Your task to perform on an android device: Go to network settings Image 0: 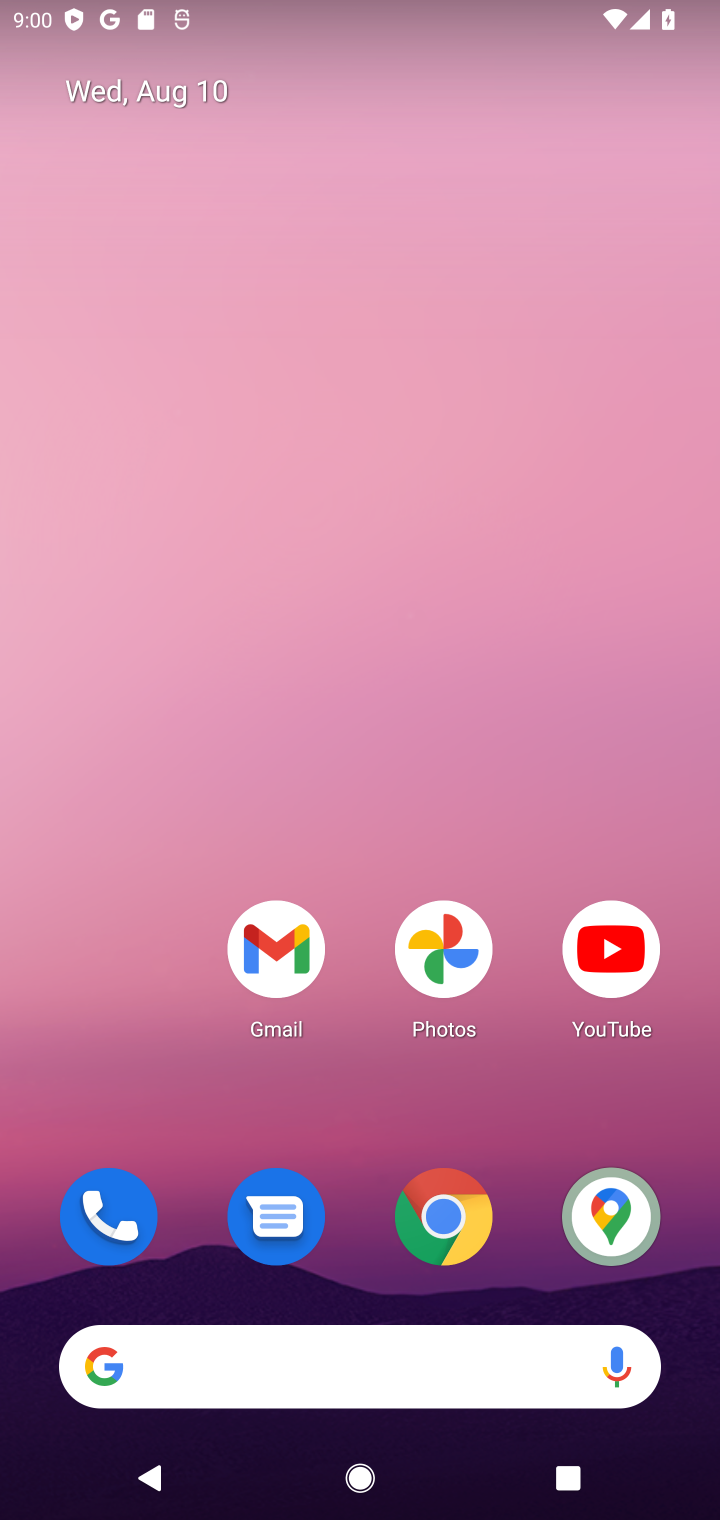
Step 0: drag from (144, 1058) to (403, 321)
Your task to perform on an android device: Go to network settings Image 1: 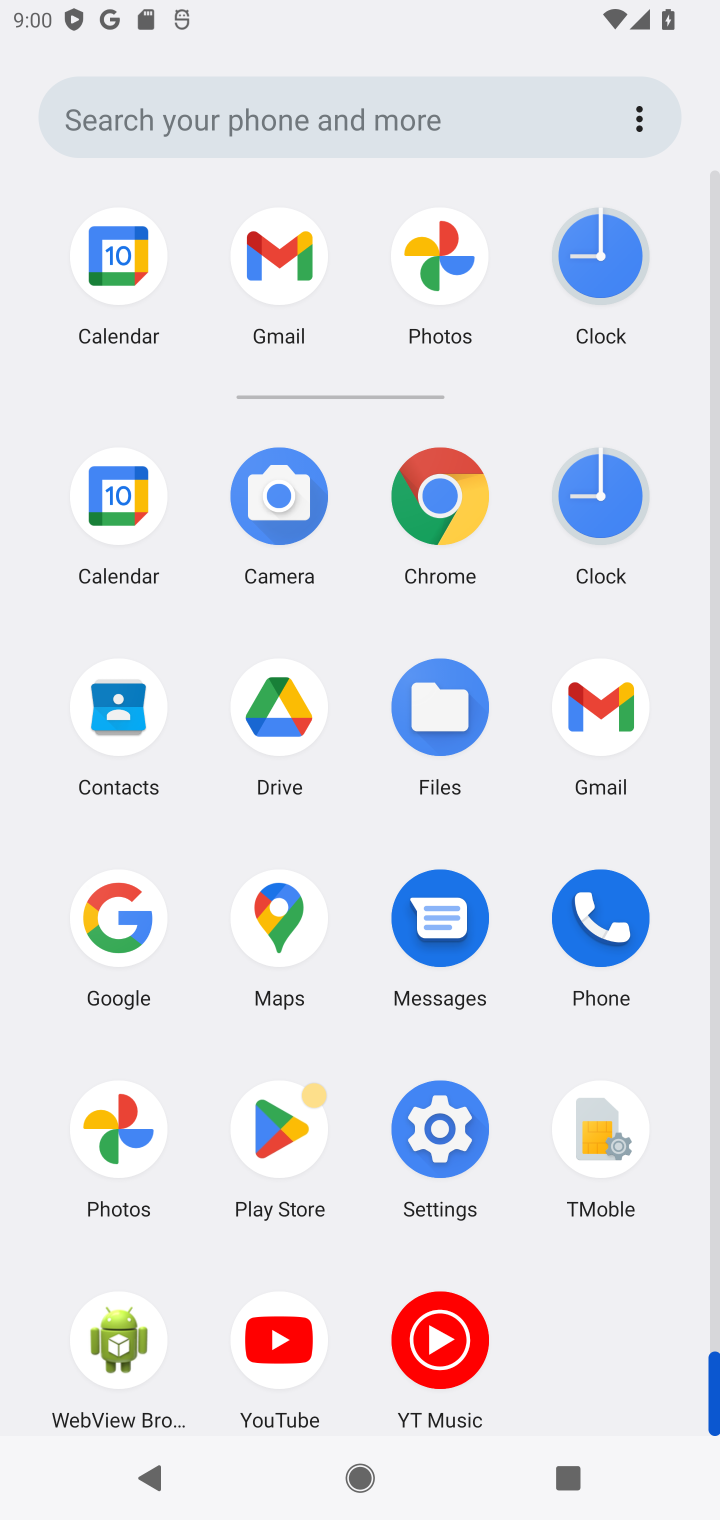
Step 1: click (442, 1257)
Your task to perform on an android device: Go to network settings Image 2: 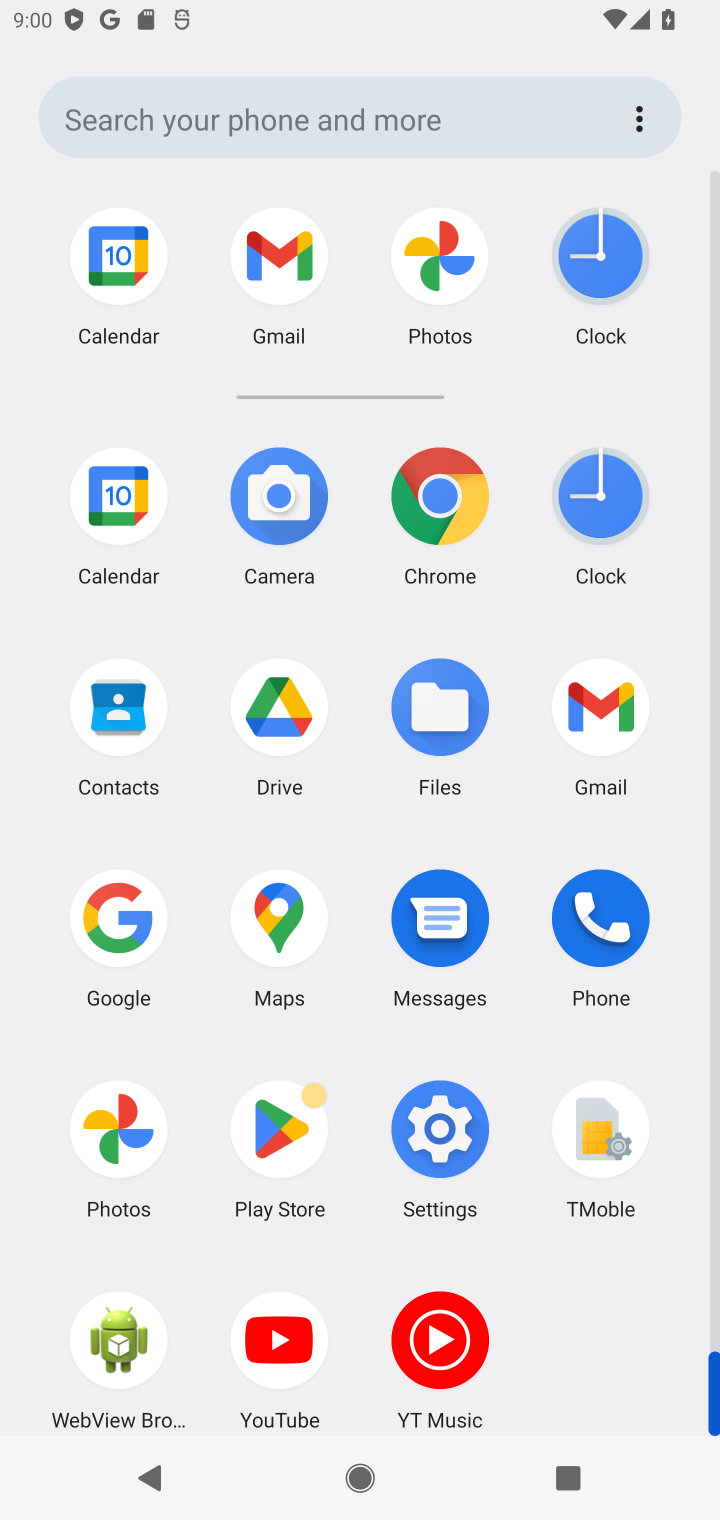
Step 2: click (420, 1040)
Your task to perform on an android device: Go to network settings Image 3: 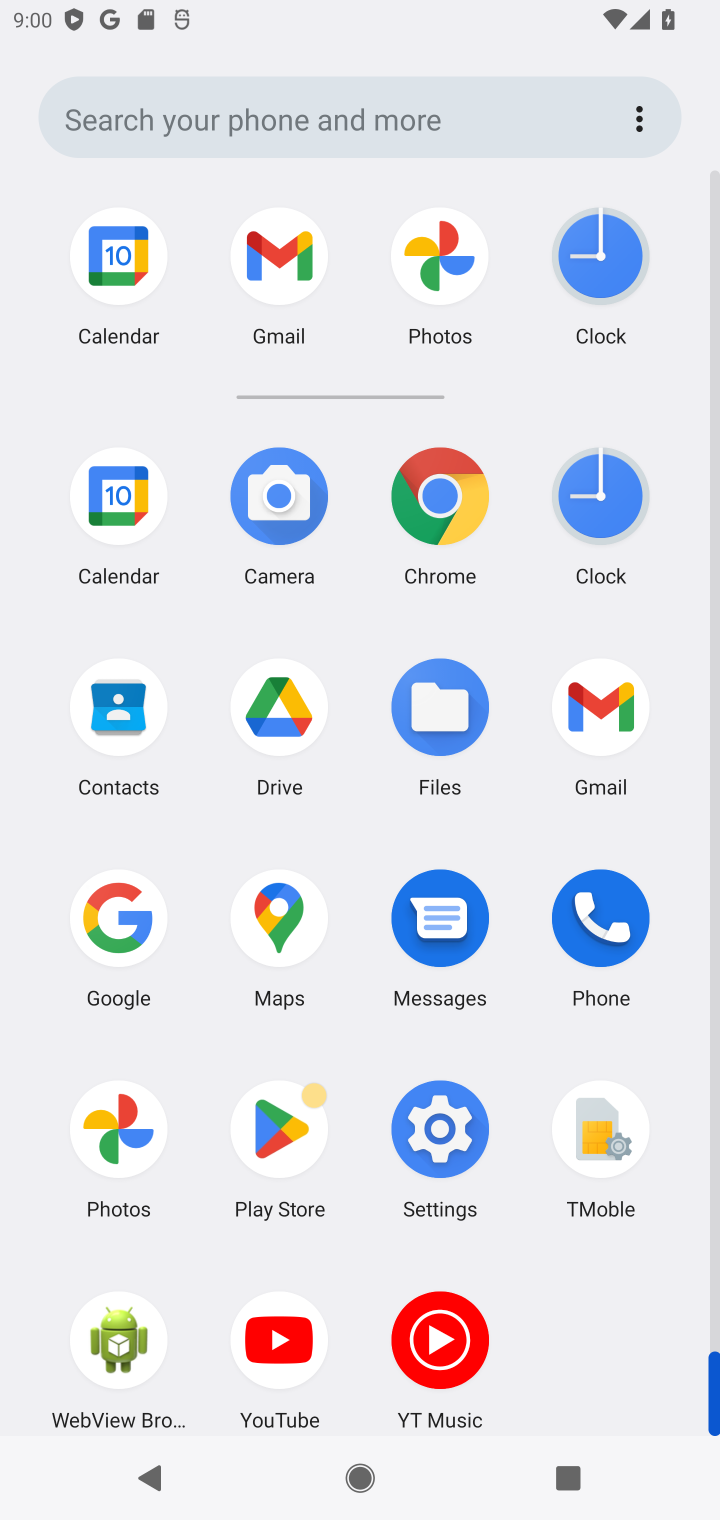
Step 3: click (426, 1124)
Your task to perform on an android device: Go to network settings Image 4: 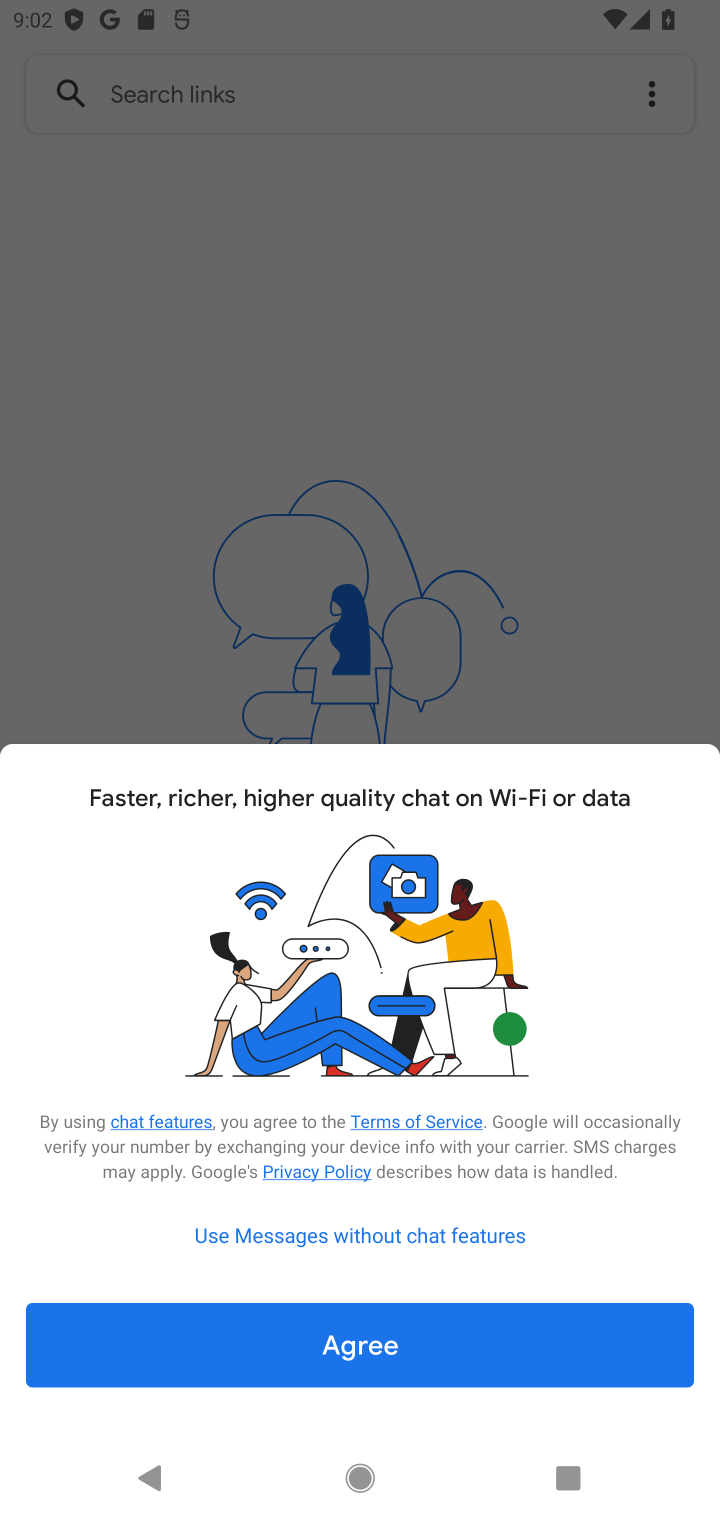
Step 4: press home button
Your task to perform on an android device: Go to network settings Image 5: 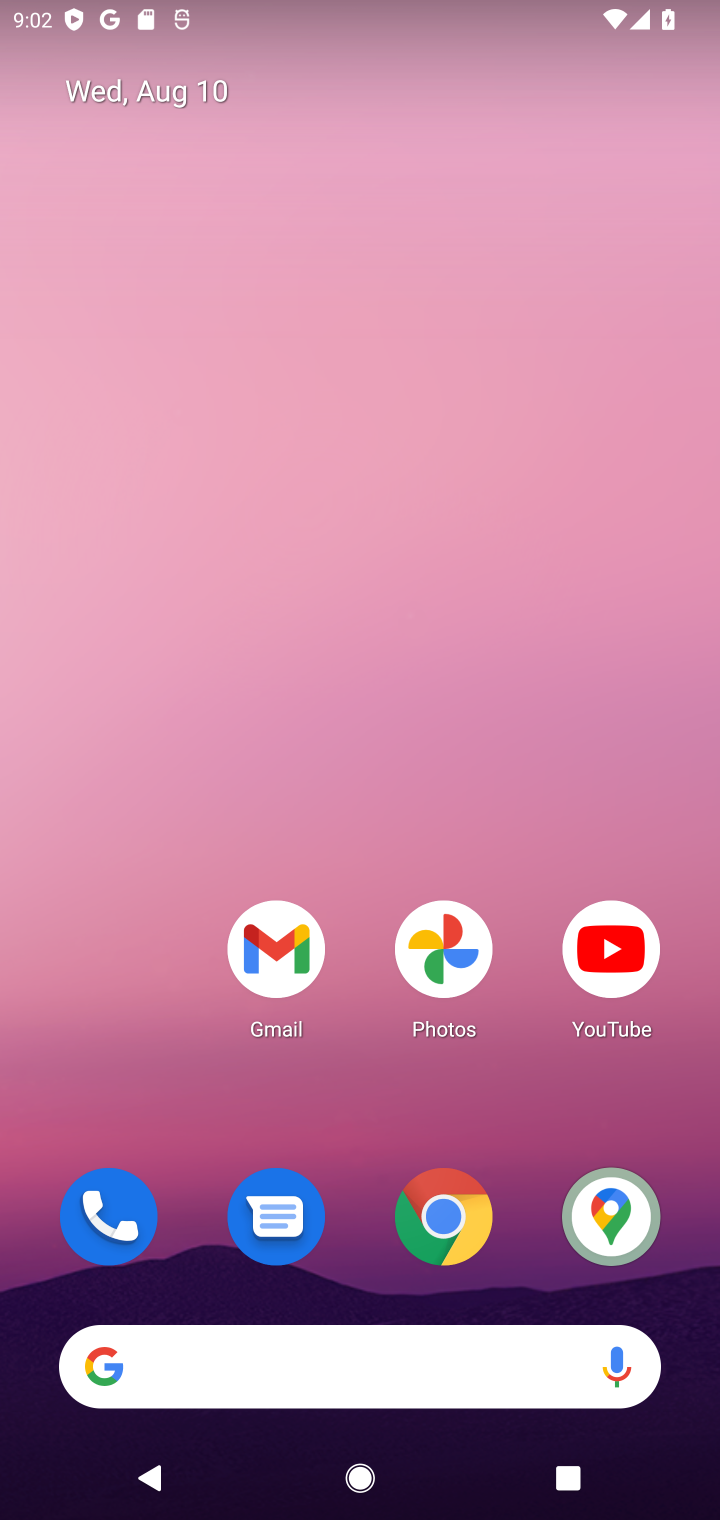
Step 5: drag from (274, 552) to (415, 231)
Your task to perform on an android device: Go to network settings Image 6: 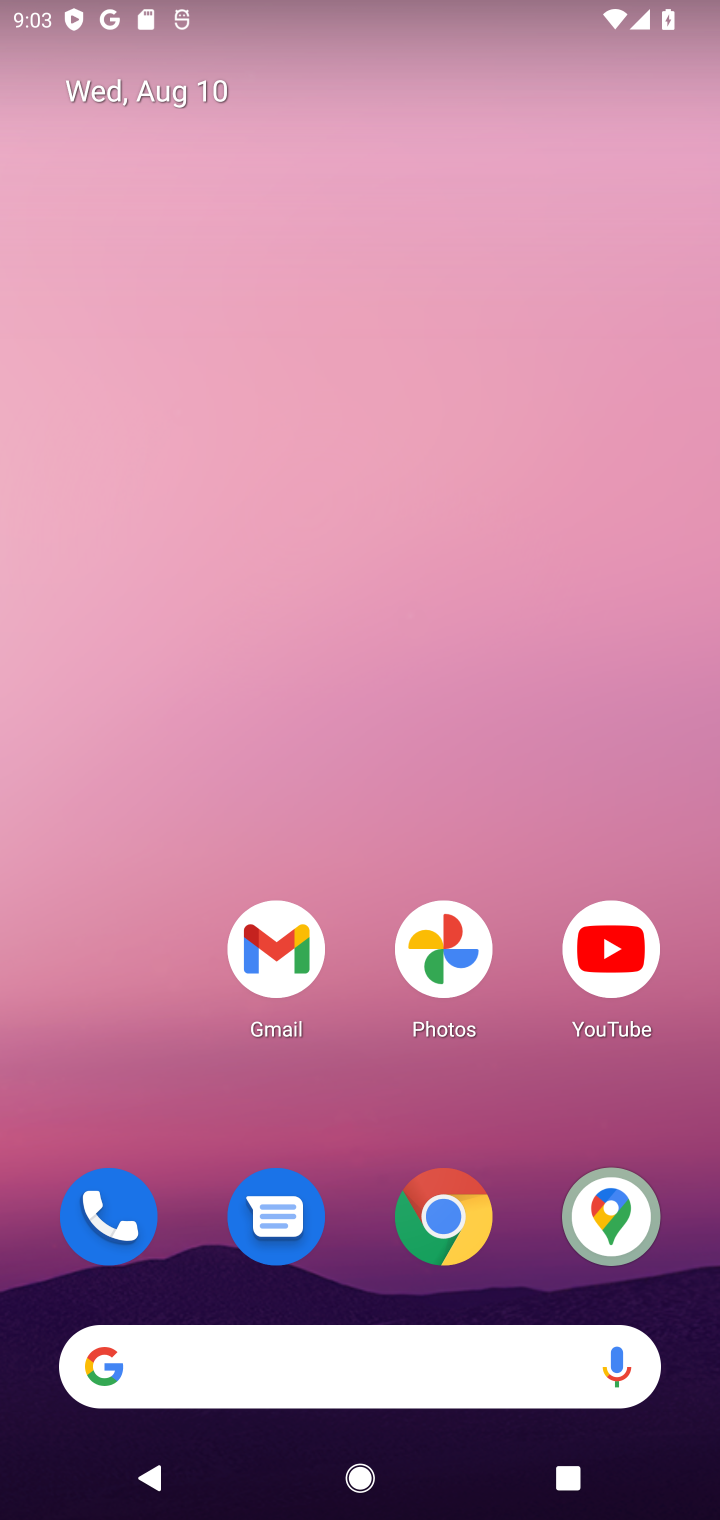
Step 6: drag from (142, 1193) to (498, 199)
Your task to perform on an android device: Go to network settings Image 7: 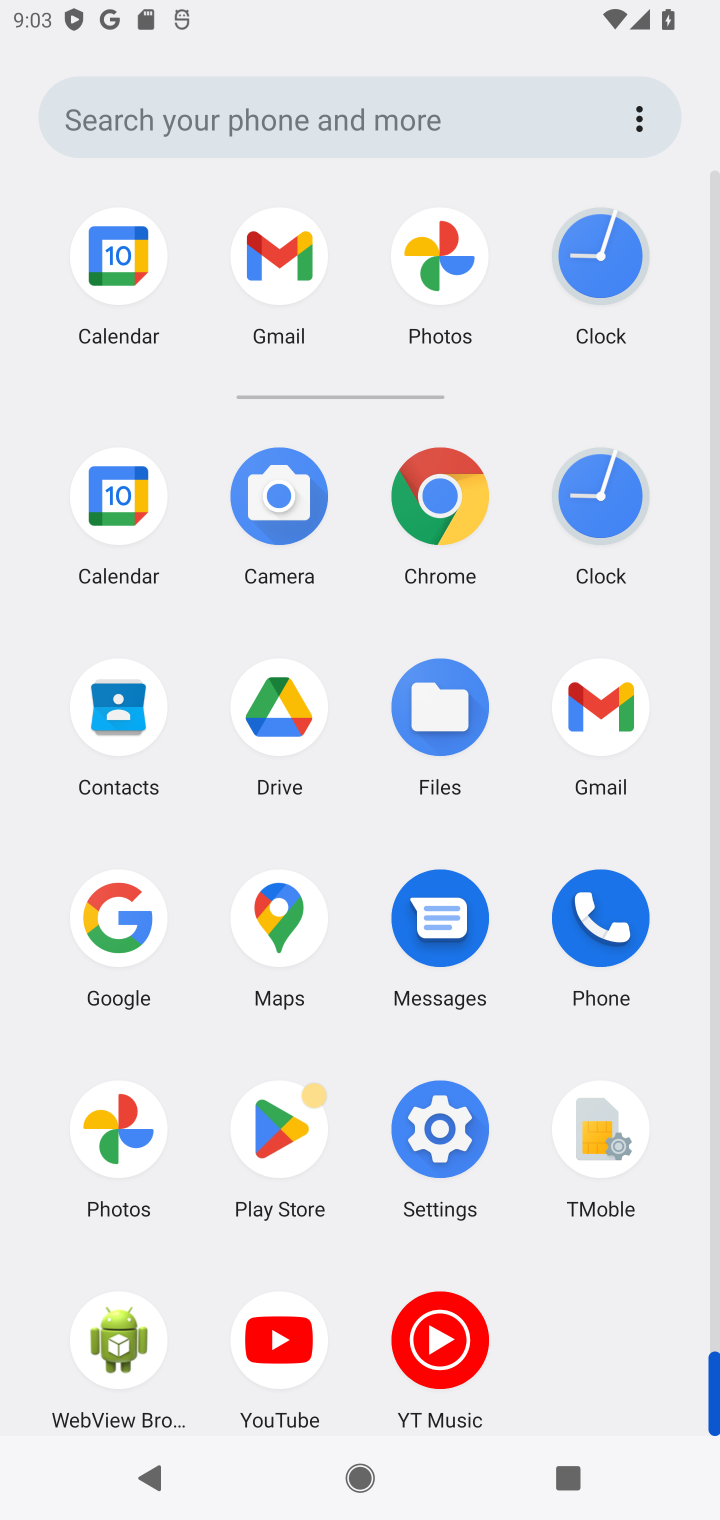
Step 7: click (469, 1150)
Your task to perform on an android device: Go to network settings Image 8: 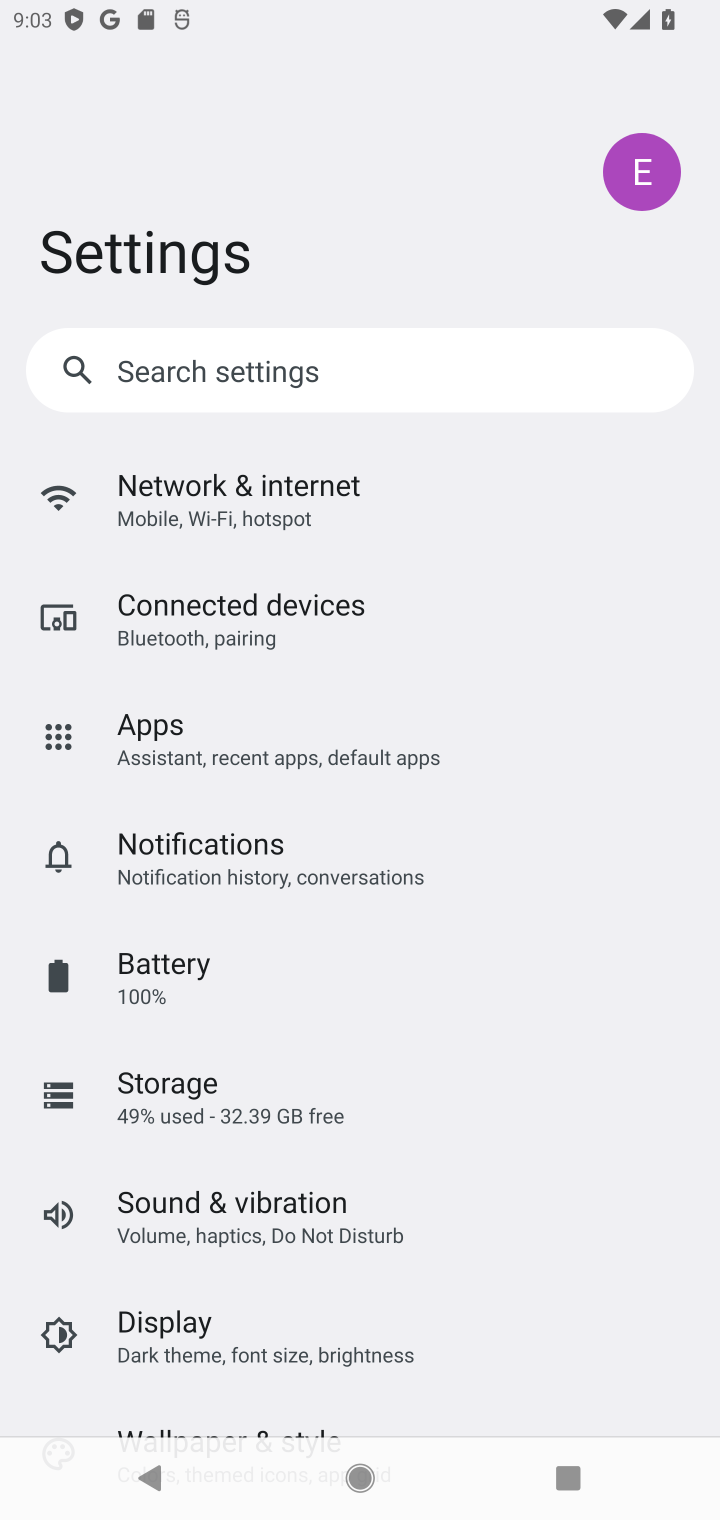
Step 8: click (256, 502)
Your task to perform on an android device: Go to network settings Image 9: 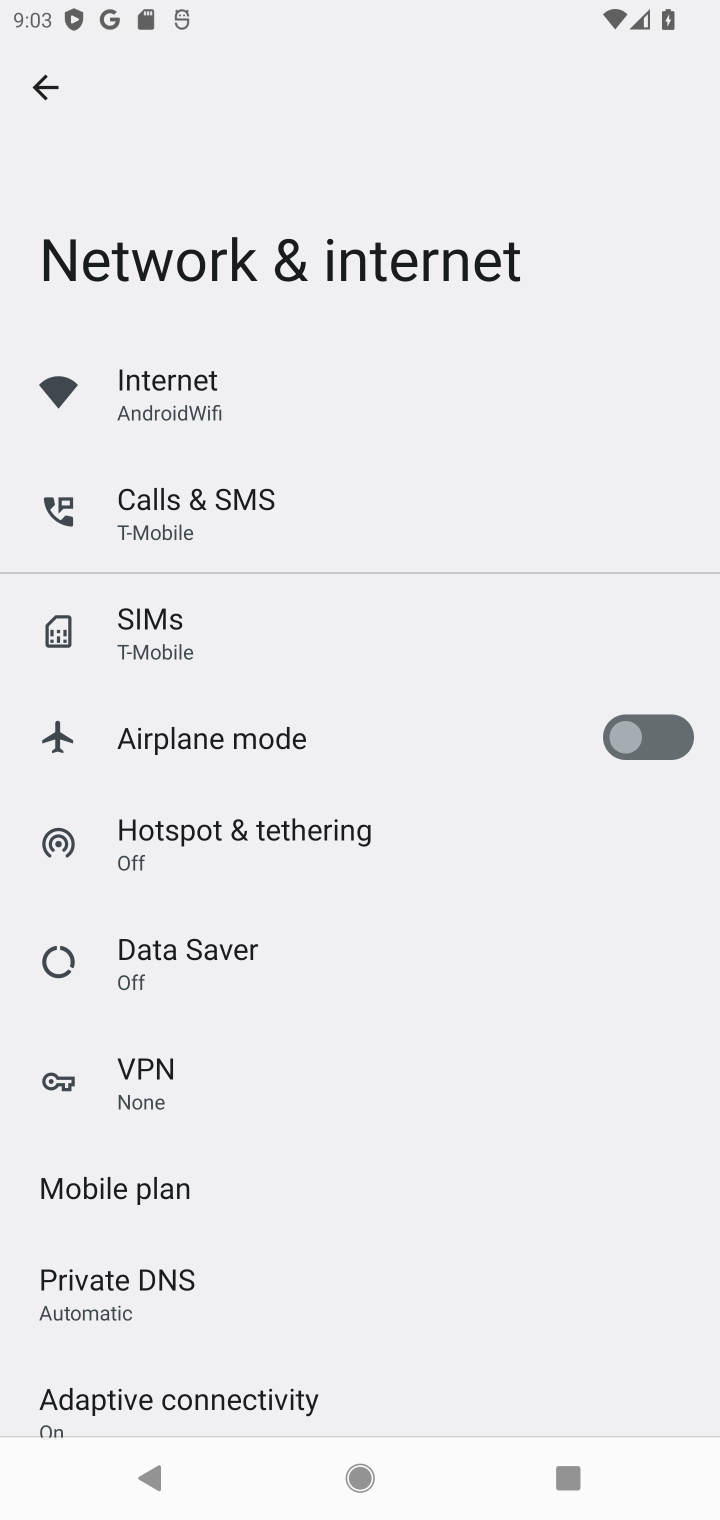
Step 9: click (160, 429)
Your task to perform on an android device: Go to network settings Image 10: 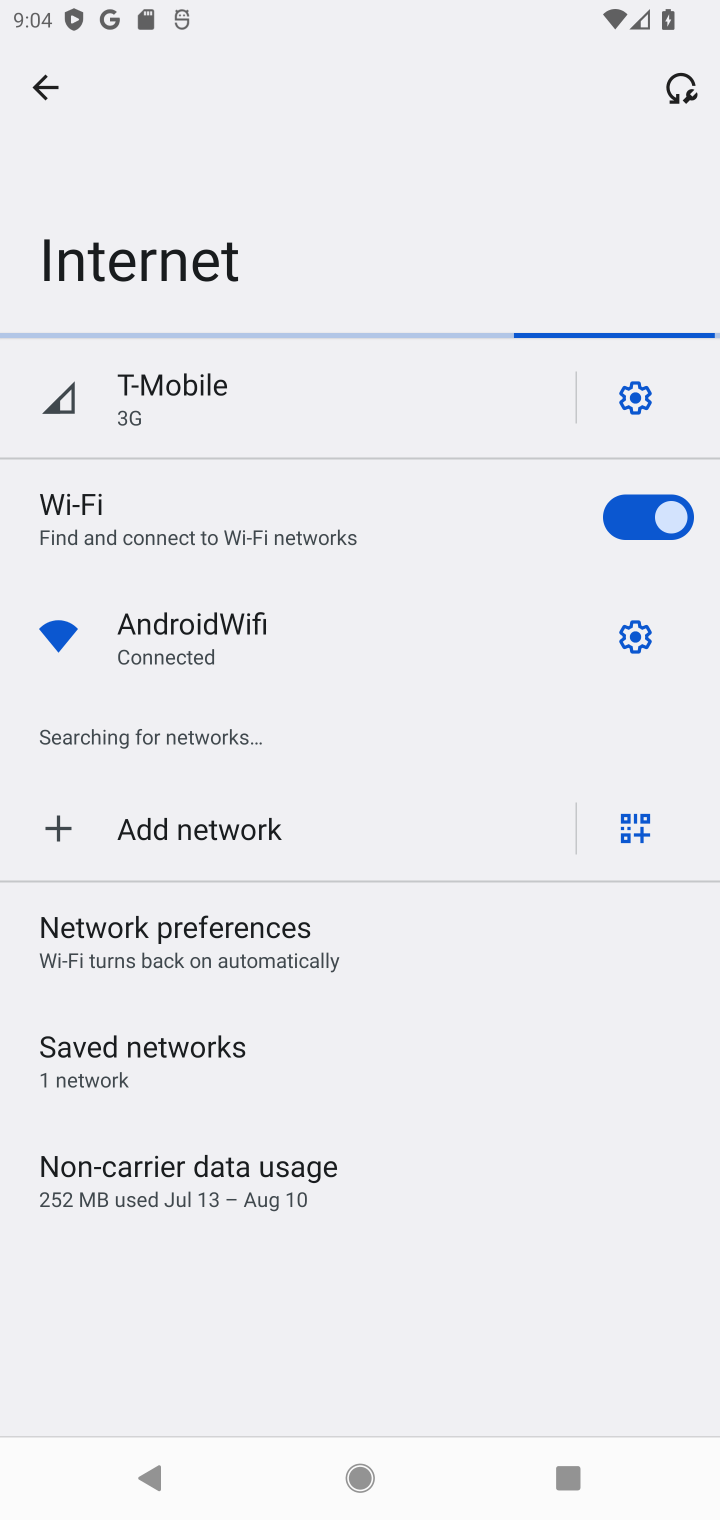
Step 10: task complete